Your task to perform on an android device: Search for a new desk on Ikea Image 0: 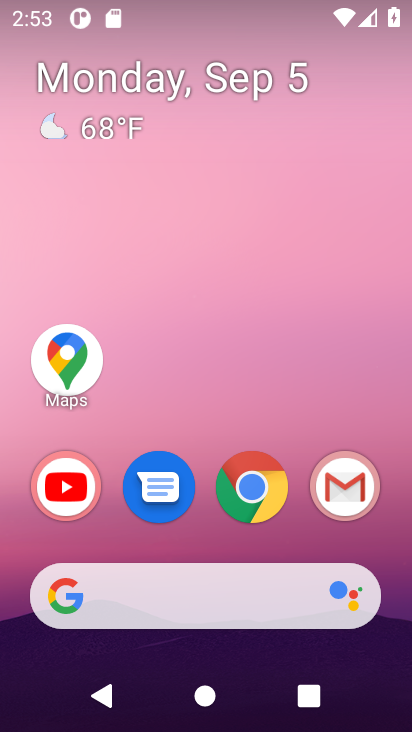
Step 0: click (235, 498)
Your task to perform on an android device: Search for a new desk on Ikea Image 1: 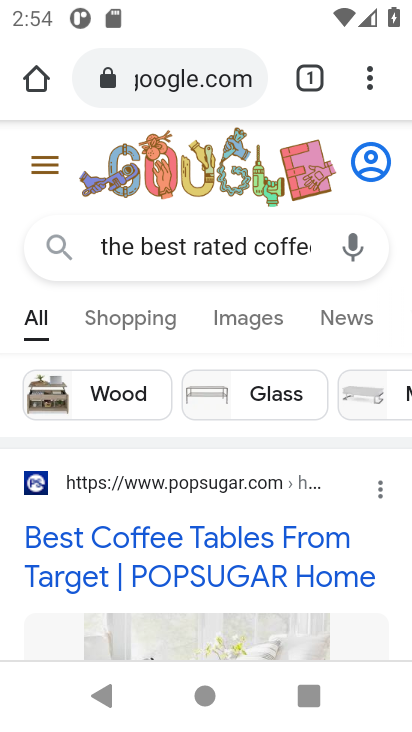
Step 1: click (170, 80)
Your task to perform on an android device: Search for a new desk on Ikea Image 2: 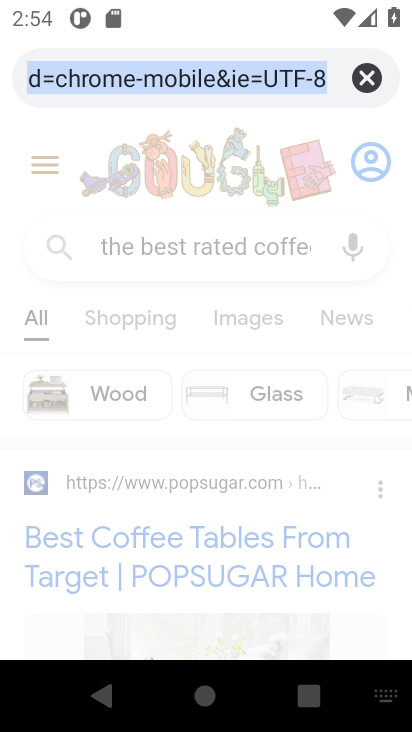
Step 2: click (359, 73)
Your task to perform on an android device: Search for a new desk on Ikea Image 3: 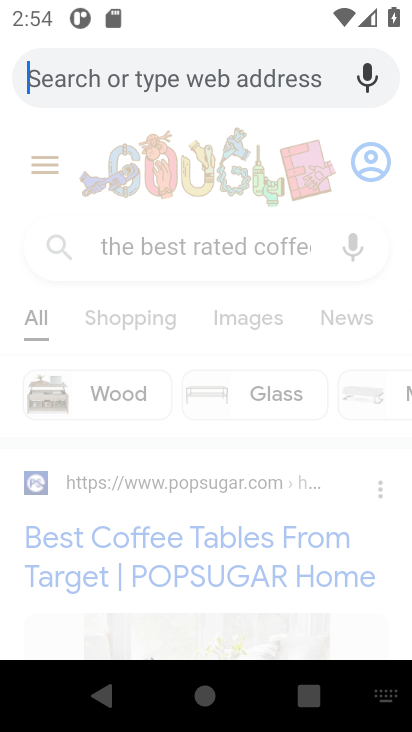
Step 3: type "new desk on Ikea"
Your task to perform on an android device: Search for a new desk on Ikea Image 4: 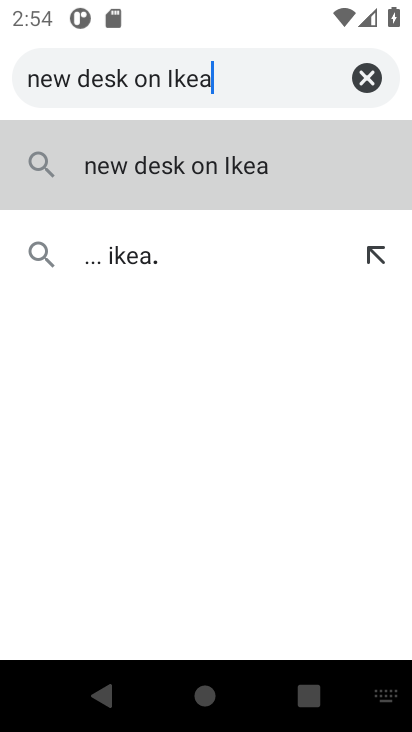
Step 4: click (233, 164)
Your task to perform on an android device: Search for a new desk on Ikea Image 5: 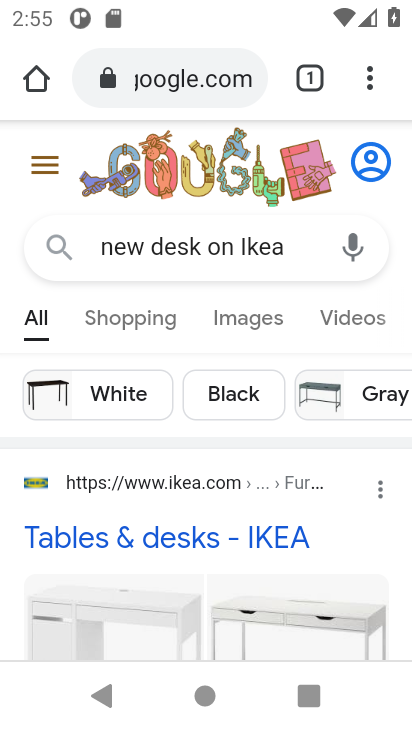
Step 5: click (106, 150)
Your task to perform on an android device: Search for a new desk on Ikea Image 6: 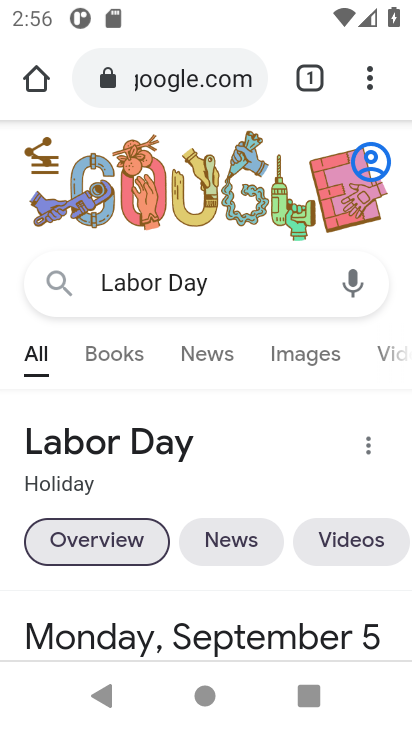
Step 6: task complete